Your task to perform on an android device: turn on location history Image 0: 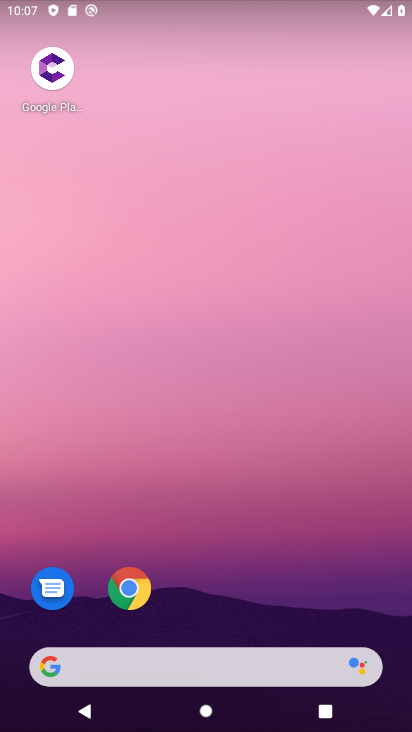
Step 0: drag from (215, 612) to (248, 97)
Your task to perform on an android device: turn on location history Image 1: 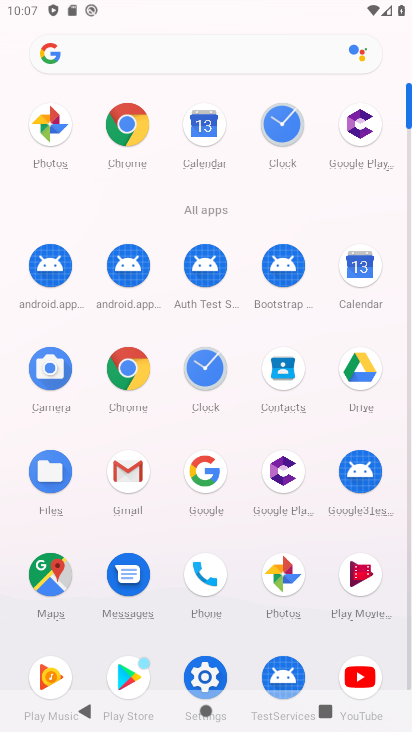
Step 1: click (194, 665)
Your task to perform on an android device: turn on location history Image 2: 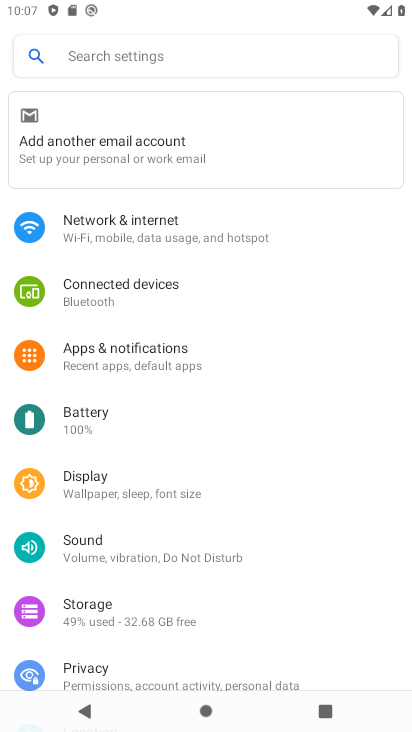
Step 2: drag from (79, 653) to (190, 284)
Your task to perform on an android device: turn on location history Image 3: 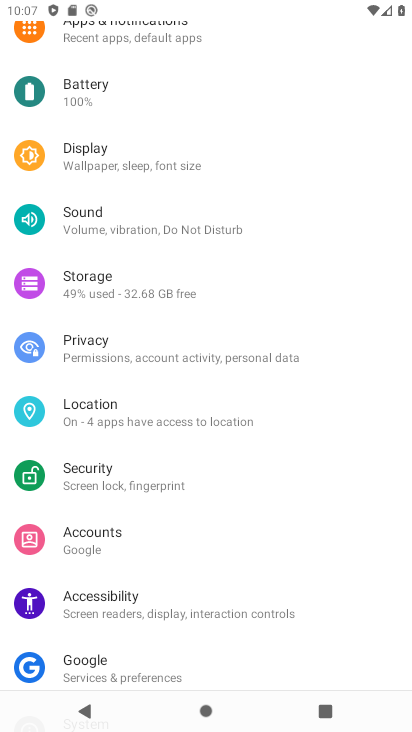
Step 3: drag from (118, 628) to (179, 670)
Your task to perform on an android device: turn on location history Image 4: 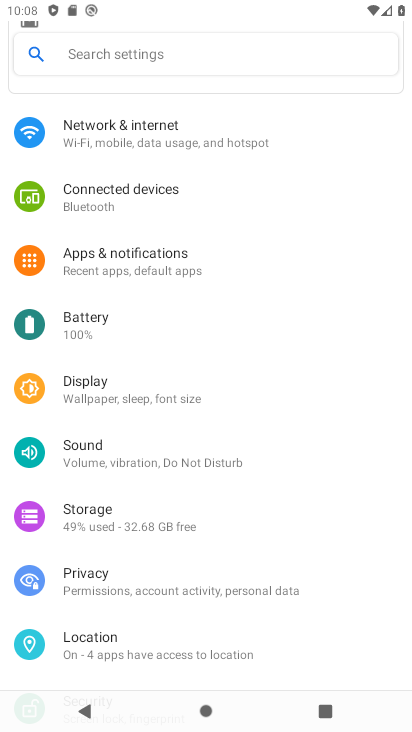
Step 4: click (108, 634)
Your task to perform on an android device: turn on location history Image 5: 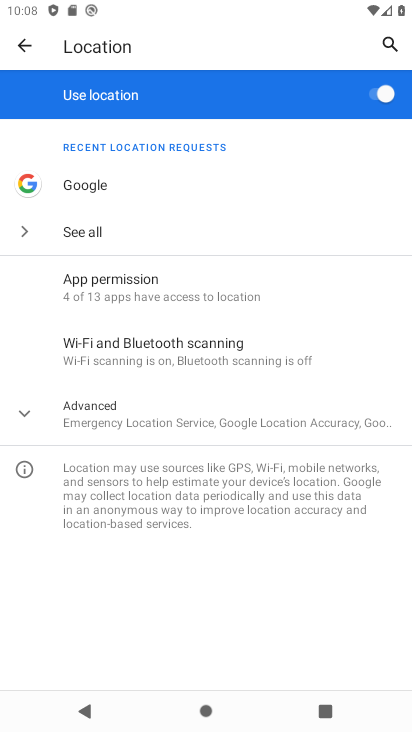
Step 5: click (136, 423)
Your task to perform on an android device: turn on location history Image 6: 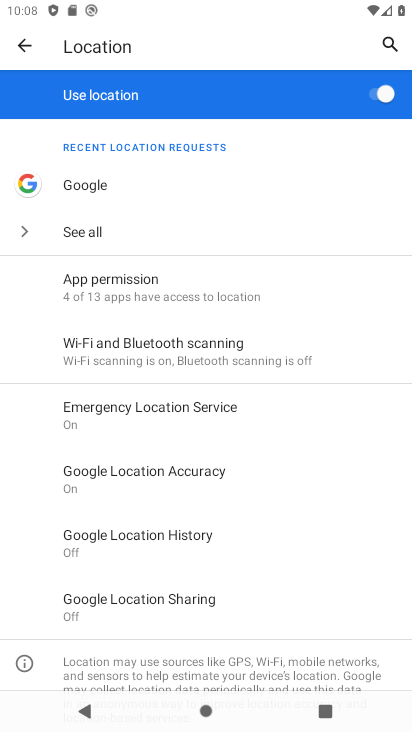
Step 6: click (191, 551)
Your task to perform on an android device: turn on location history Image 7: 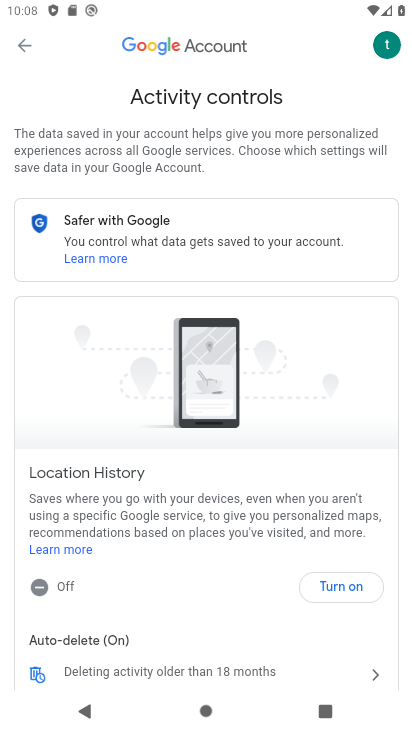
Step 7: click (337, 585)
Your task to perform on an android device: turn on location history Image 8: 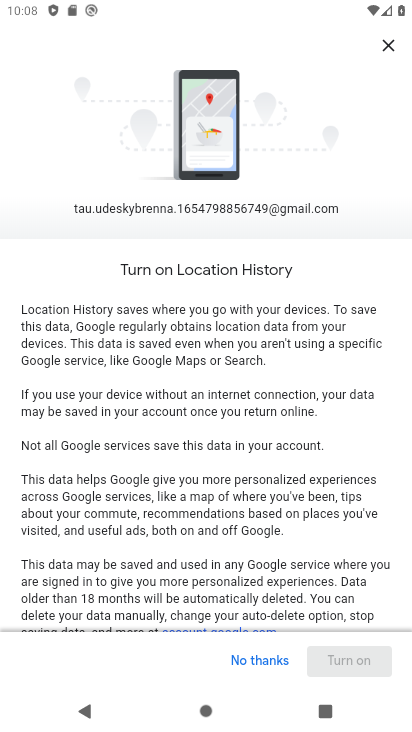
Step 8: drag from (183, 595) to (310, 67)
Your task to perform on an android device: turn on location history Image 9: 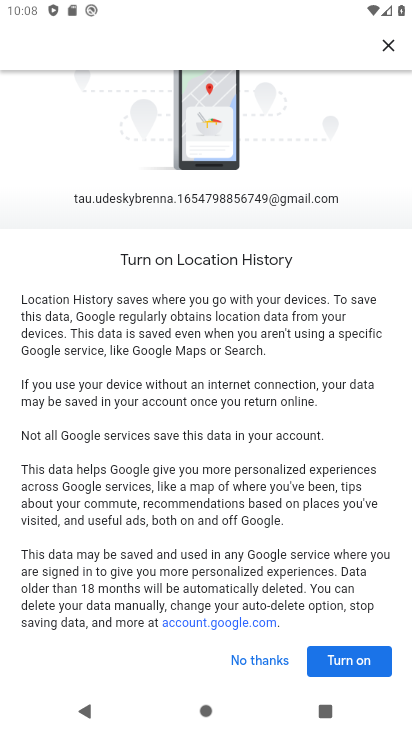
Step 9: click (355, 648)
Your task to perform on an android device: turn on location history Image 10: 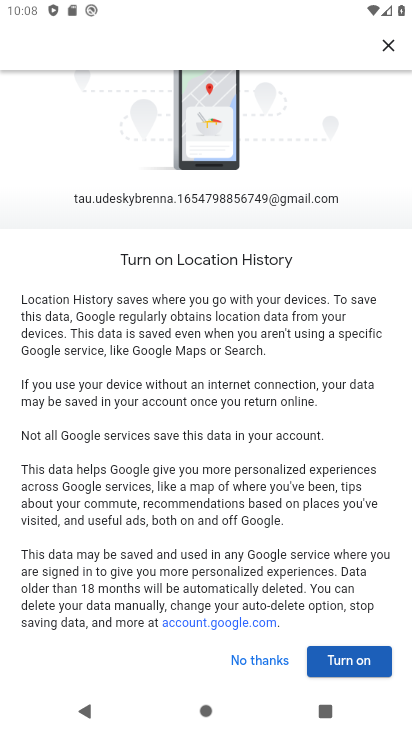
Step 10: click (361, 666)
Your task to perform on an android device: turn on location history Image 11: 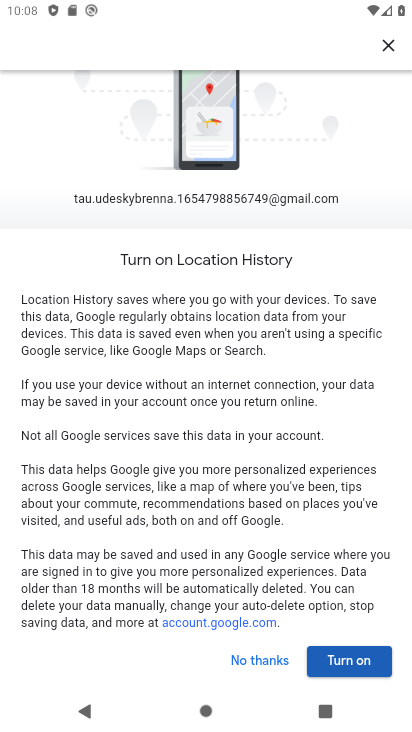
Step 11: click (361, 666)
Your task to perform on an android device: turn on location history Image 12: 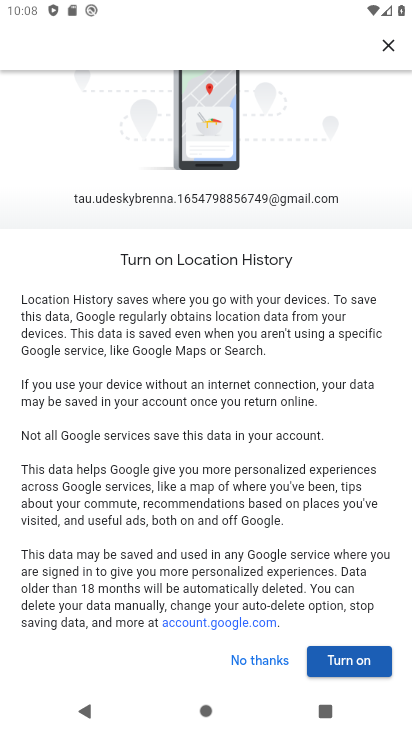
Step 12: drag from (225, 586) to (332, 319)
Your task to perform on an android device: turn on location history Image 13: 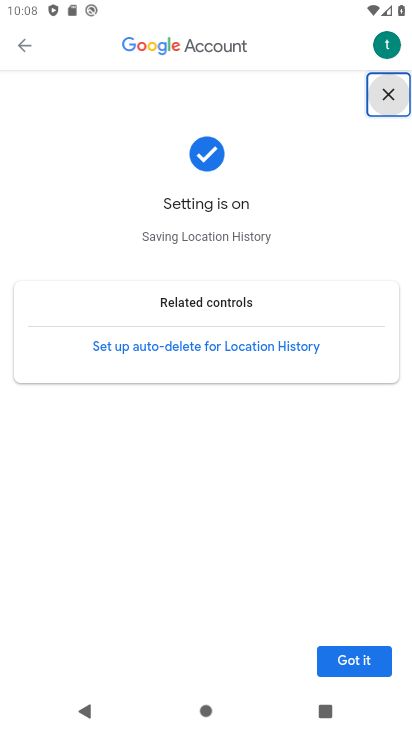
Step 13: click (373, 659)
Your task to perform on an android device: turn on location history Image 14: 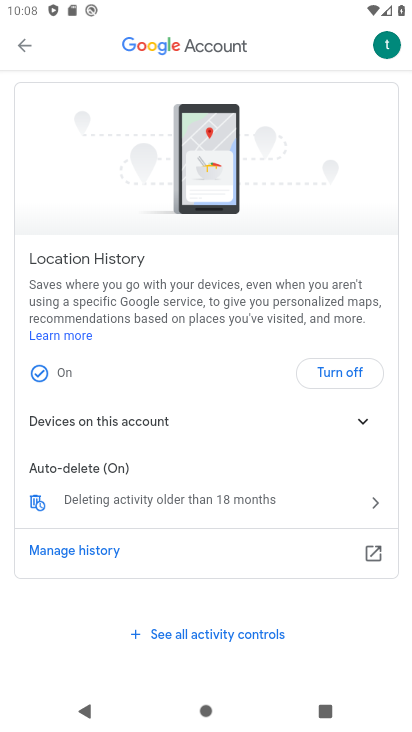
Step 14: task complete